Your task to perform on an android device: delete location history Image 0: 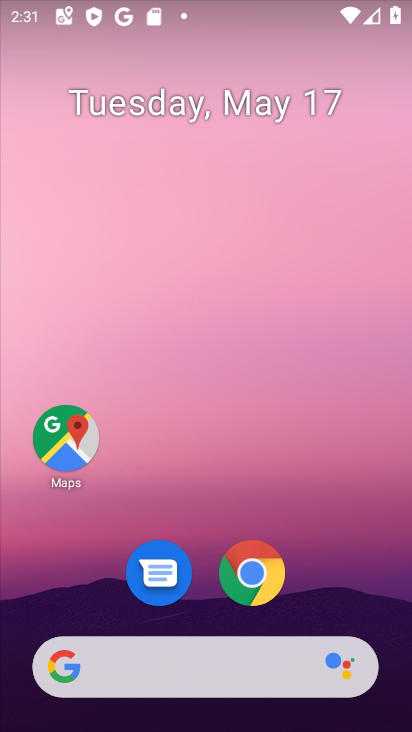
Step 0: drag from (323, 585) to (340, 102)
Your task to perform on an android device: delete location history Image 1: 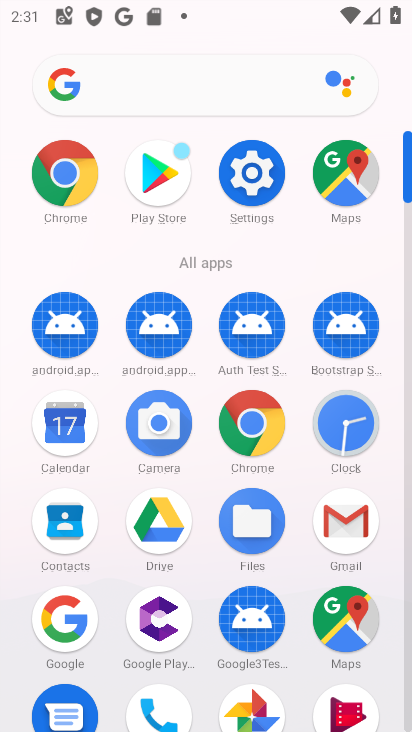
Step 1: click (275, 205)
Your task to perform on an android device: delete location history Image 2: 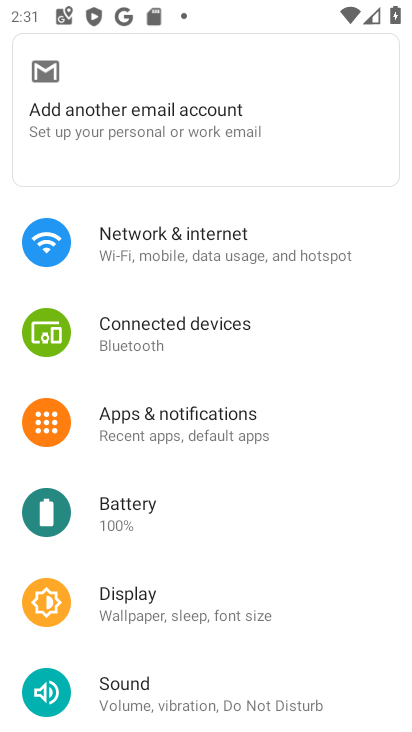
Step 2: drag from (319, 635) to (352, 270)
Your task to perform on an android device: delete location history Image 3: 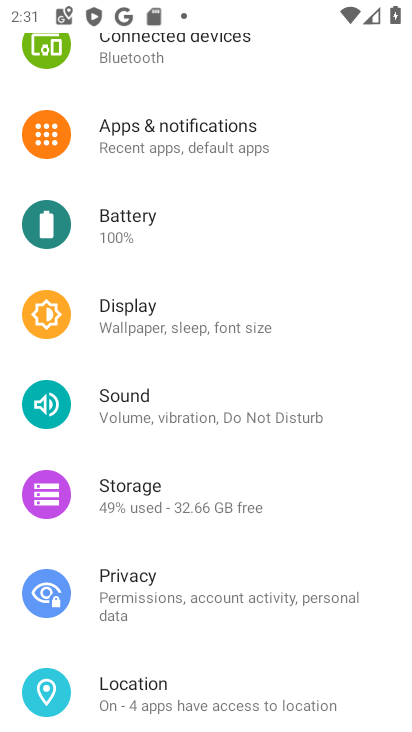
Step 3: drag from (332, 523) to (317, 266)
Your task to perform on an android device: delete location history Image 4: 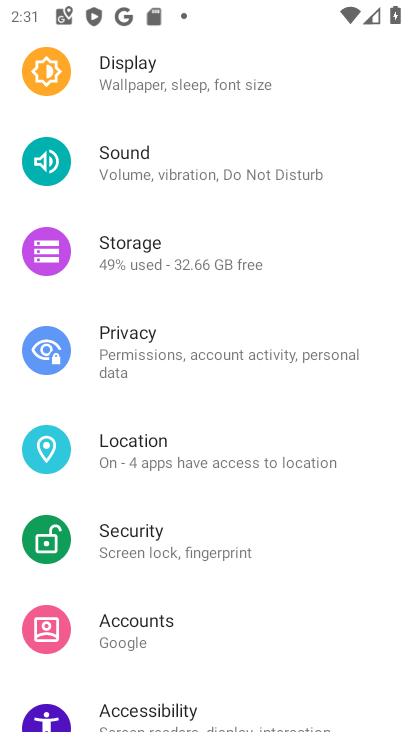
Step 4: click (171, 454)
Your task to perform on an android device: delete location history Image 5: 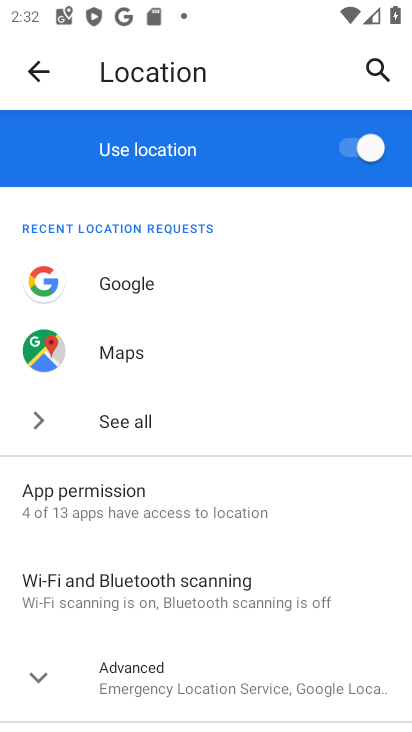
Step 5: drag from (304, 561) to (329, 275)
Your task to perform on an android device: delete location history Image 6: 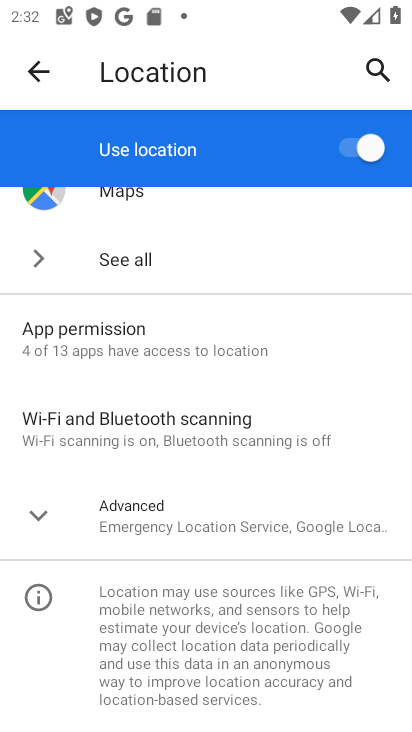
Step 6: click (220, 524)
Your task to perform on an android device: delete location history Image 7: 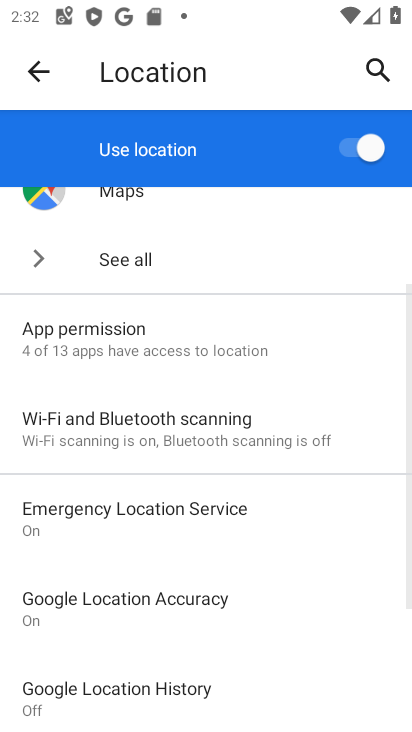
Step 7: drag from (250, 658) to (262, 383)
Your task to perform on an android device: delete location history Image 8: 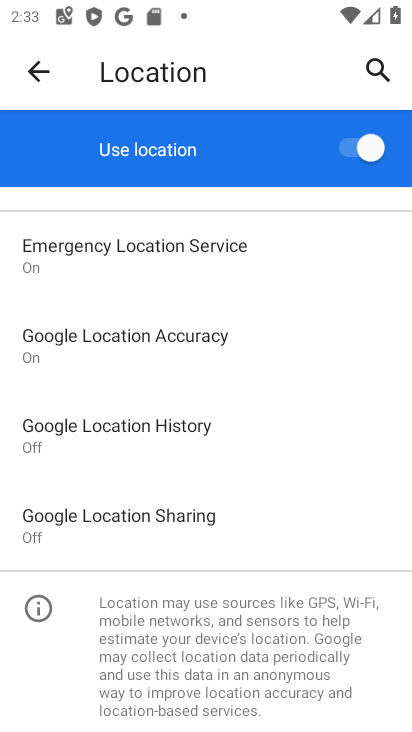
Step 8: click (131, 429)
Your task to perform on an android device: delete location history Image 9: 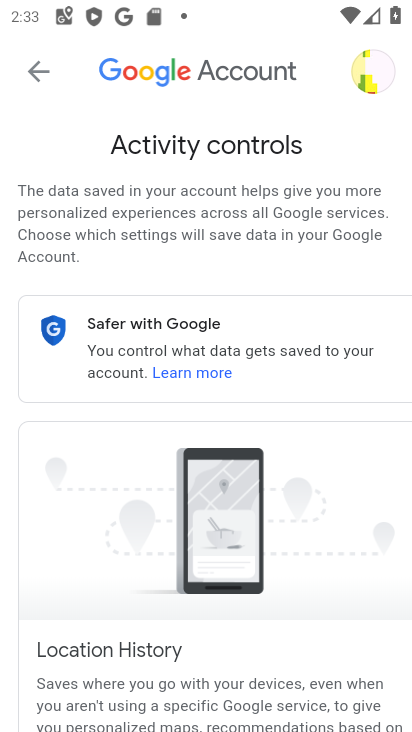
Step 9: drag from (319, 622) to (306, 318)
Your task to perform on an android device: delete location history Image 10: 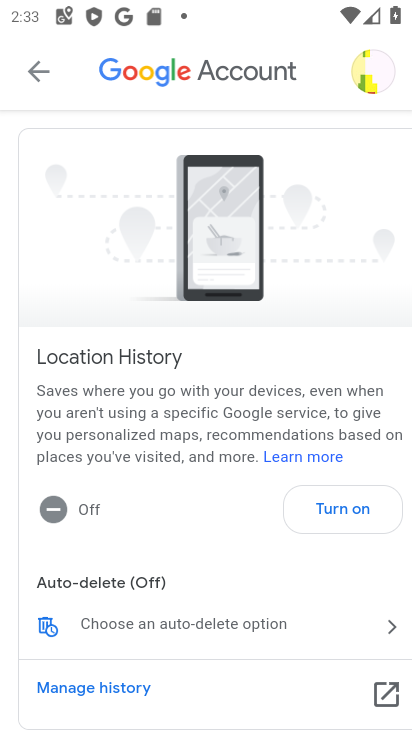
Step 10: click (113, 692)
Your task to perform on an android device: delete location history Image 11: 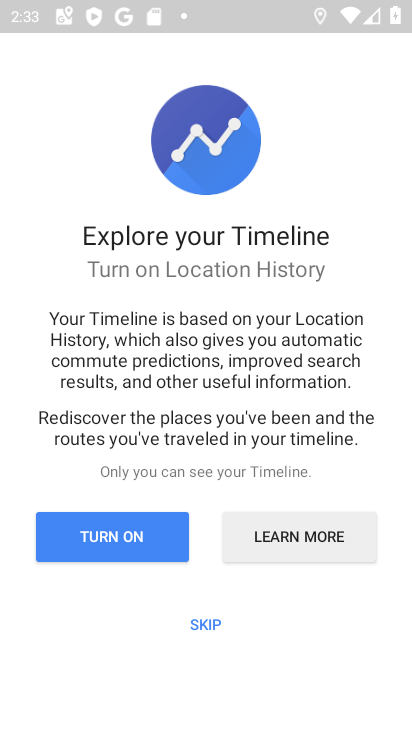
Step 11: click (214, 612)
Your task to perform on an android device: delete location history Image 12: 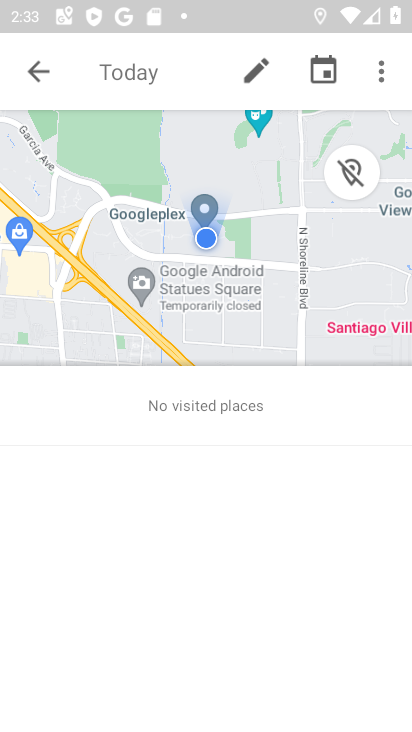
Step 12: click (376, 71)
Your task to perform on an android device: delete location history Image 13: 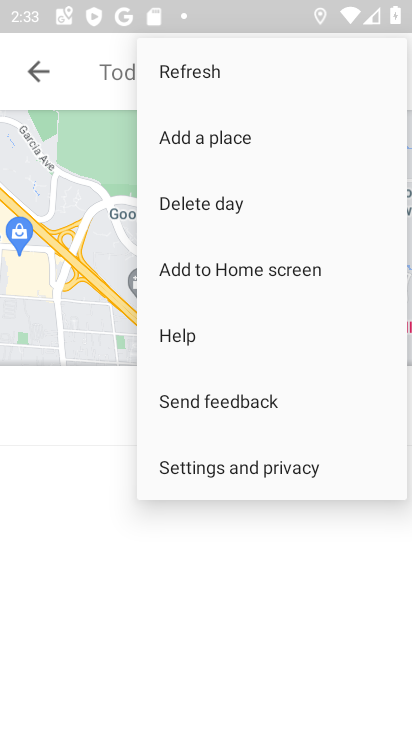
Step 13: click (240, 484)
Your task to perform on an android device: delete location history Image 14: 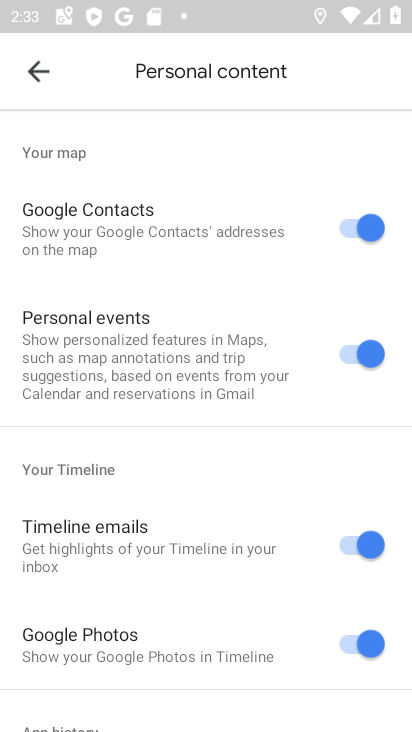
Step 14: drag from (218, 609) to (218, 227)
Your task to perform on an android device: delete location history Image 15: 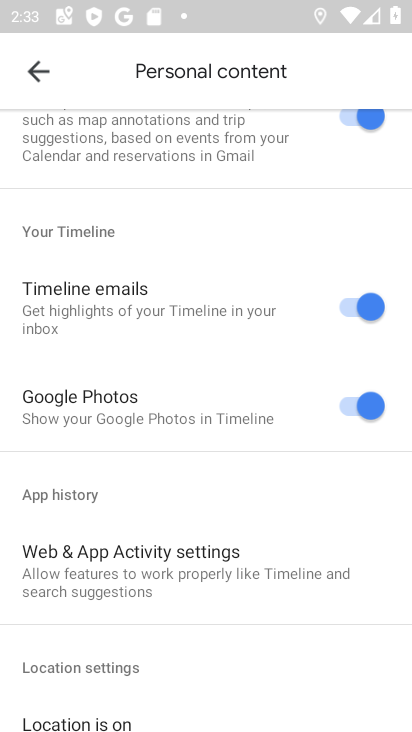
Step 15: drag from (202, 610) to (261, 288)
Your task to perform on an android device: delete location history Image 16: 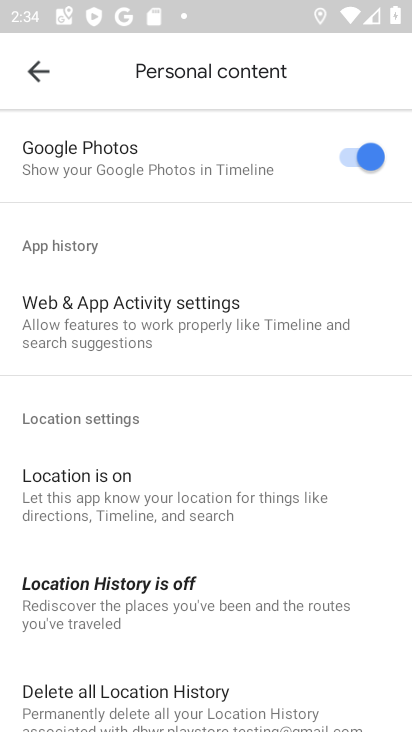
Step 16: drag from (255, 628) to (229, 303)
Your task to perform on an android device: delete location history Image 17: 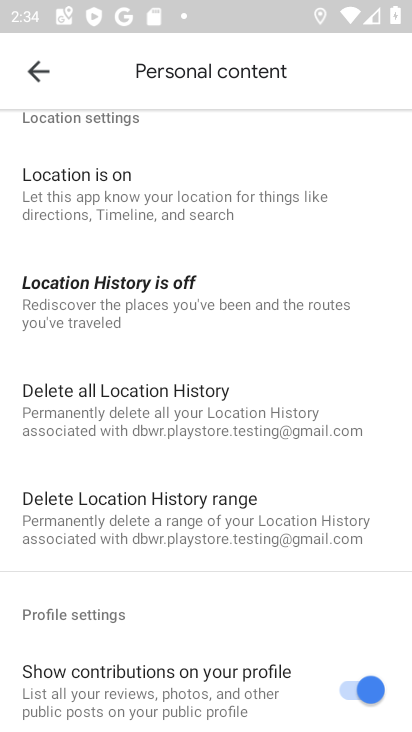
Step 17: click (174, 403)
Your task to perform on an android device: delete location history Image 18: 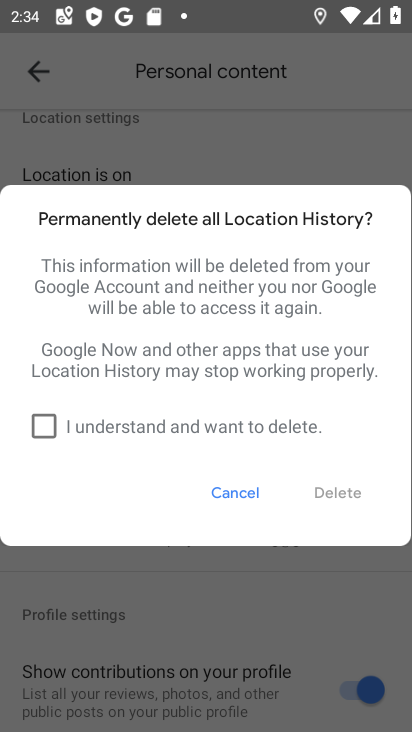
Step 18: click (39, 432)
Your task to perform on an android device: delete location history Image 19: 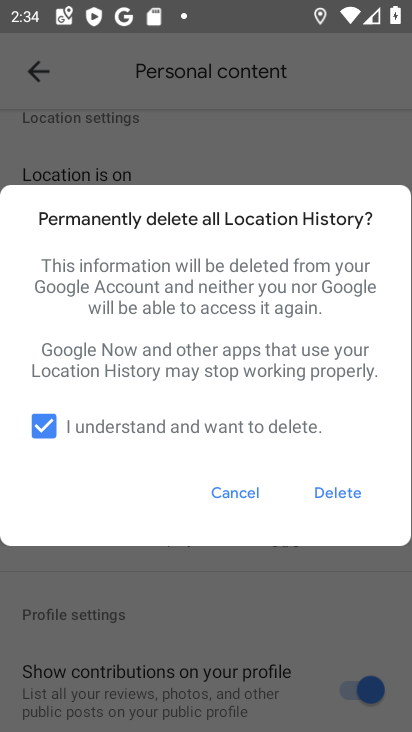
Step 19: click (339, 496)
Your task to perform on an android device: delete location history Image 20: 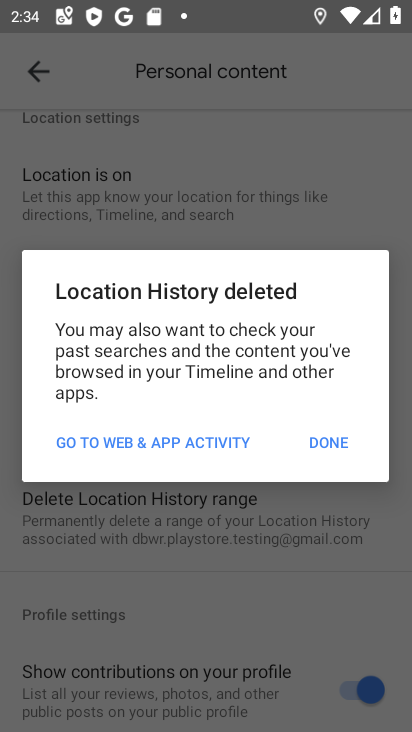
Step 20: click (340, 448)
Your task to perform on an android device: delete location history Image 21: 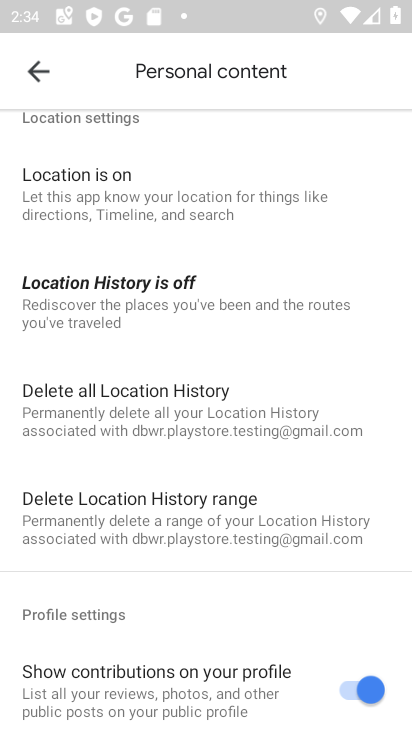
Step 21: task complete